Your task to perform on an android device: toggle javascript in the chrome app Image 0: 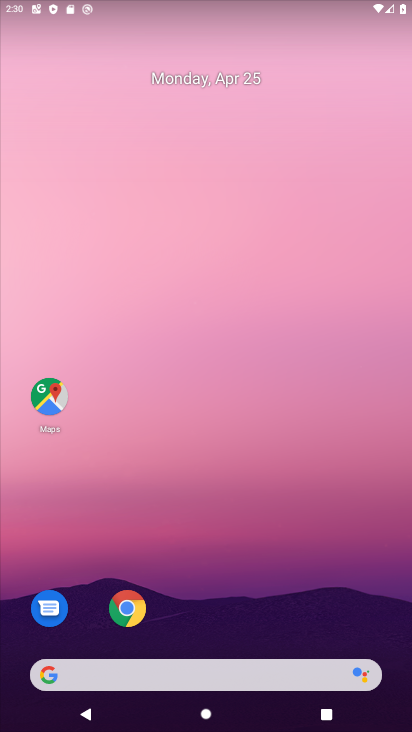
Step 0: drag from (362, 612) to (371, 135)
Your task to perform on an android device: toggle javascript in the chrome app Image 1: 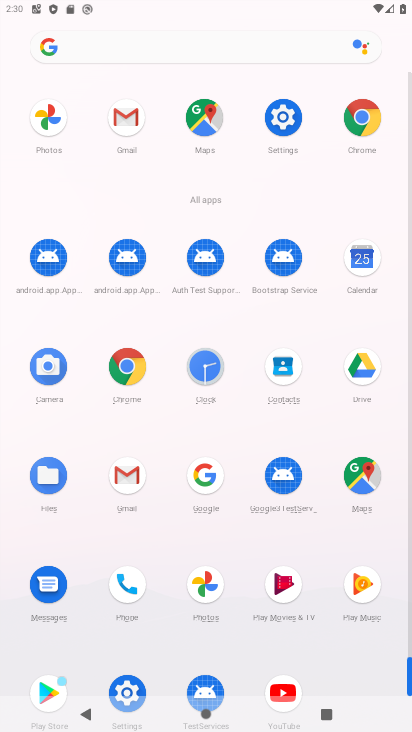
Step 1: click (372, 129)
Your task to perform on an android device: toggle javascript in the chrome app Image 2: 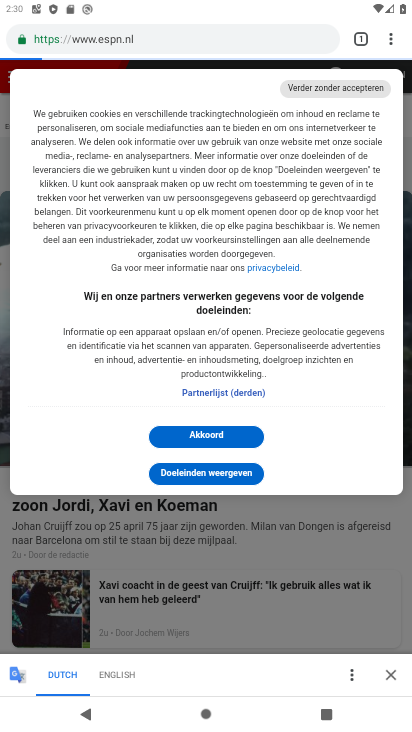
Step 2: click (393, 42)
Your task to perform on an android device: toggle javascript in the chrome app Image 3: 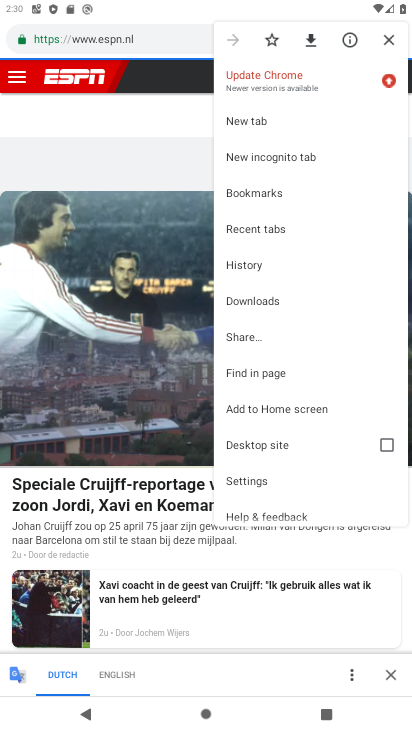
Step 3: click (262, 480)
Your task to perform on an android device: toggle javascript in the chrome app Image 4: 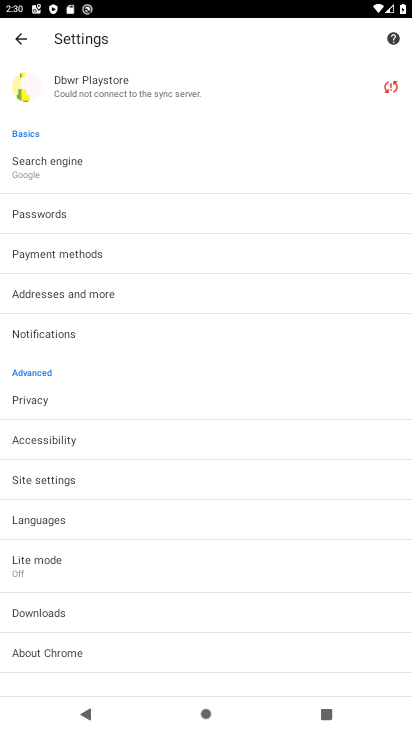
Step 4: drag from (260, 580) to (277, 337)
Your task to perform on an android device: toggle javascript in the chrome app Image 5: 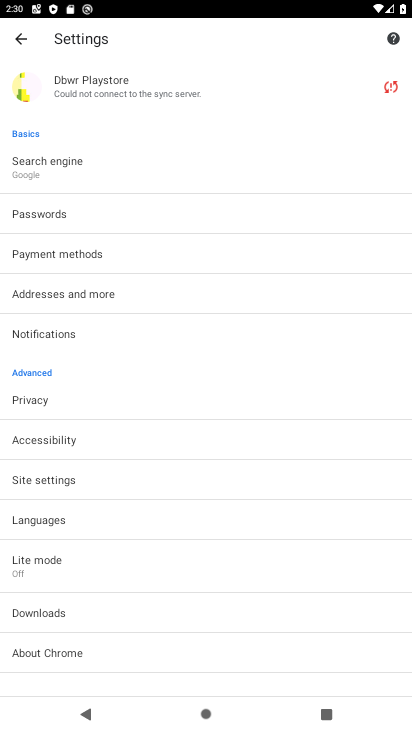
Step 5: click (174, 476)
Your task to perform on an android device: toggle javascript in the chrome app Image 6: 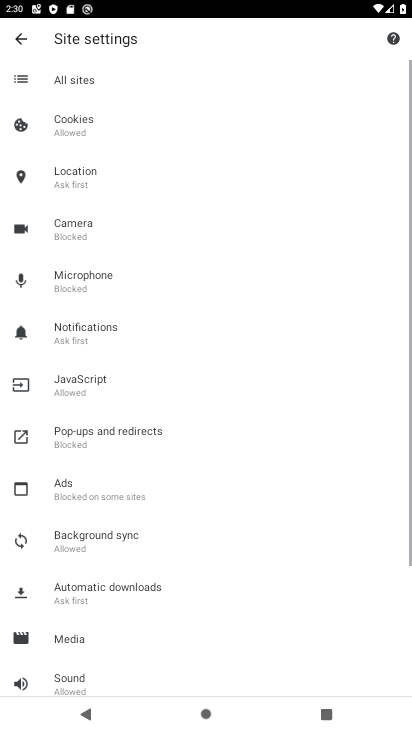
Step 6: drag from (285, 302) to (278, 419)
Your task to perform on an android device: toggle javascript in the chrome app Image 7: 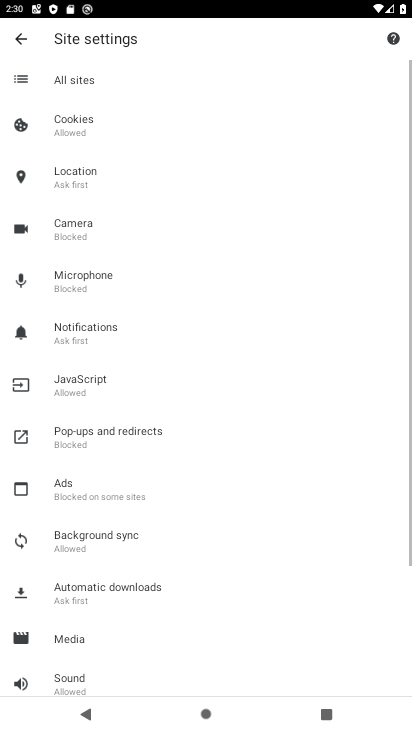
Step 7: drag from (310, 575) to (306, 434)
Your task to perform on an android device: toggle javascript in the chrome app Image 8: 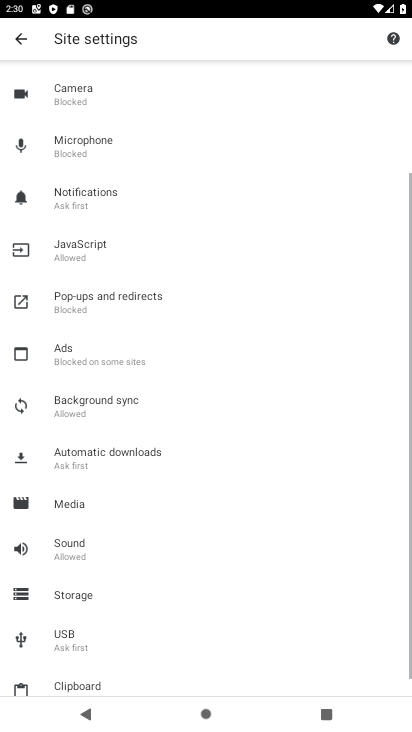
Step 8: drag from (289, 572) to (302, 394)
Your task to perform on an android device: toggle javascript in the chrome app Image 9: 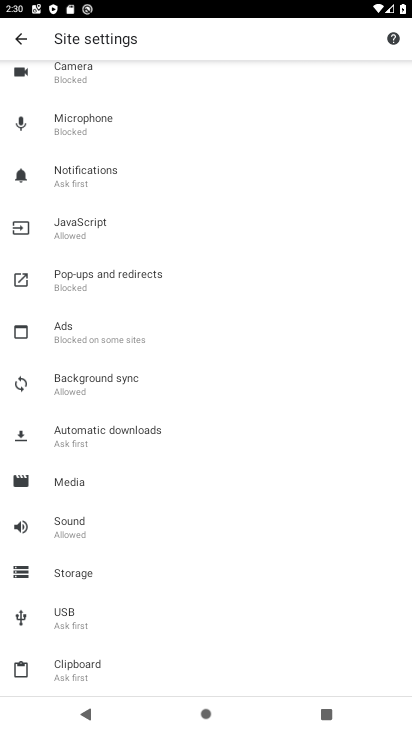
Step 9: drag from (305, 290) to (305, 421)
Your task to perform on an android device: toggle javascript in the chrome app Image 10: 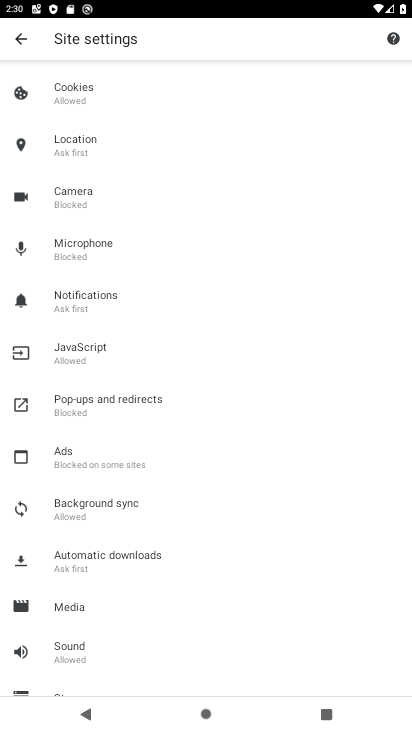
Step 10: click (197, 364)
Your task to perform on an android device: toggle javascript in the chrome app Image 11: 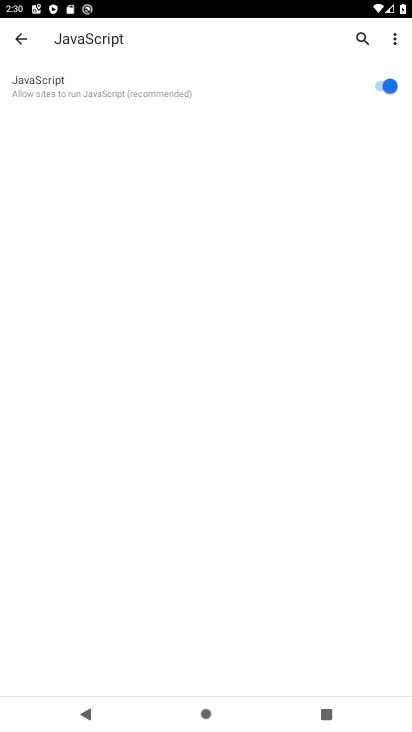
Step 11: click (381, 80)
Your task to perform on an android device: toggle javascript in the chrome app Image 12: 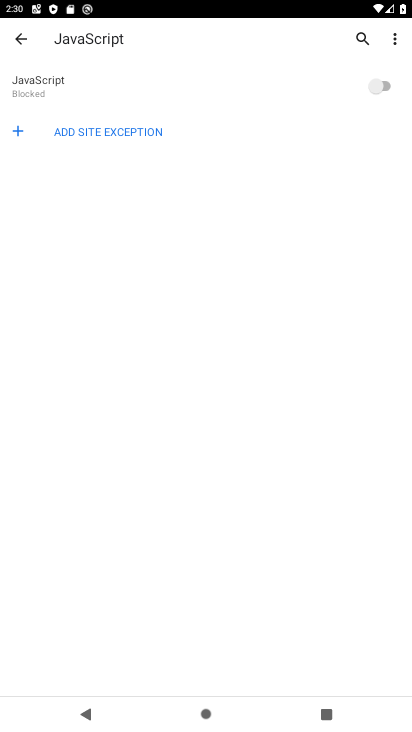
Step 12: task complete